Your task to perform on an android device: turn on wifi Image 0: 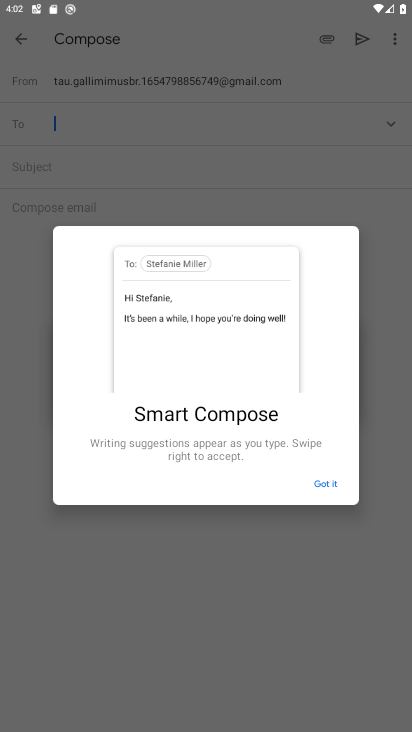
Step 0: press home button
Your task to perform on an android device: turn on wifi Image 1: 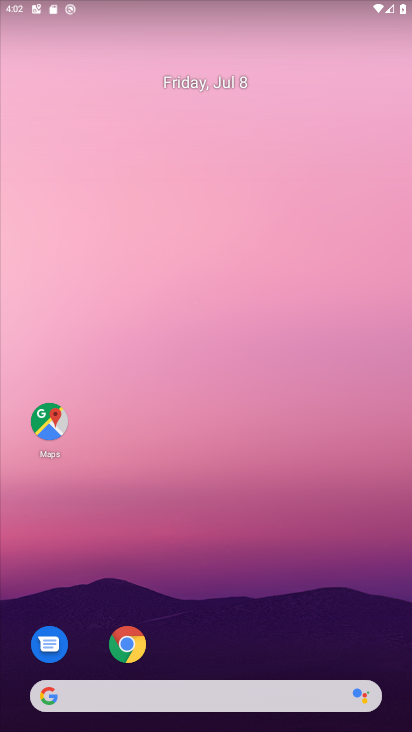
Step 1: drag from (345, 622) to (355, 98)
Your task to perform on an android device: turn on wifi Image 2: 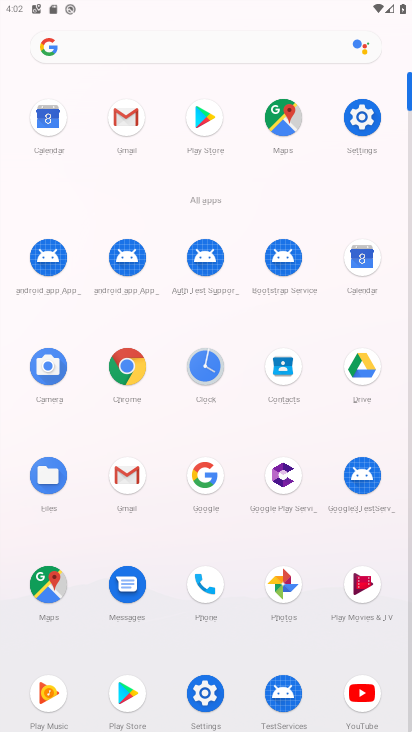
Step 2: click (204, 693)
Your task to perform on an android device: turn on wifi Image 3: 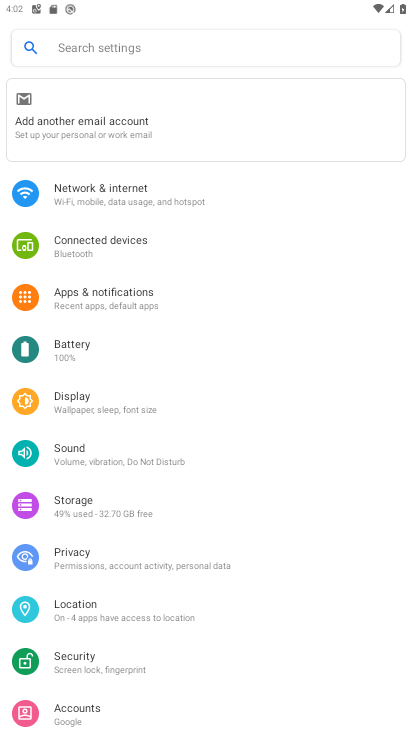
Step 3: click (94, 188)
Your task to perform on an android device: turn on wifi Image 4: 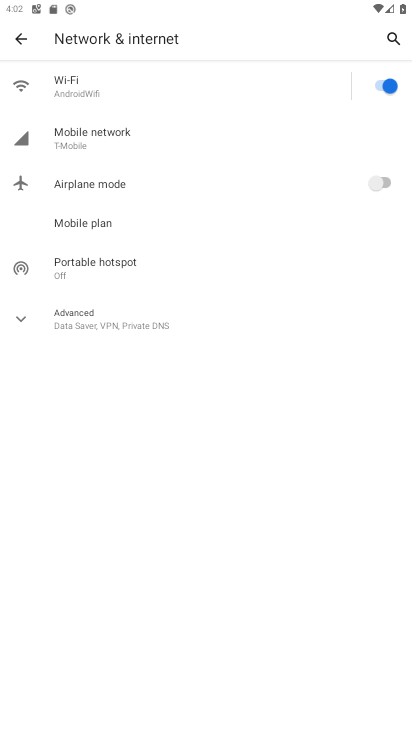
Step 4: task complete